Your task to perform on an android device: Search for sushi restaurants on Maps Image 0: 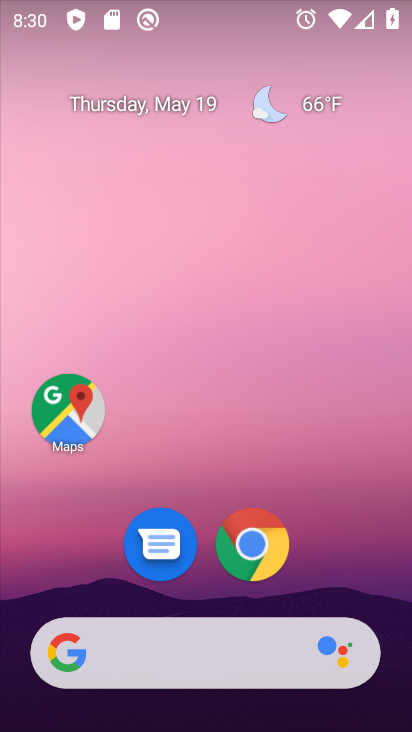
Step 0: drag from (388, 596) to (306, 74)
Your task to perform on an android device: Search for sushi restaurants on Maps Image 1: 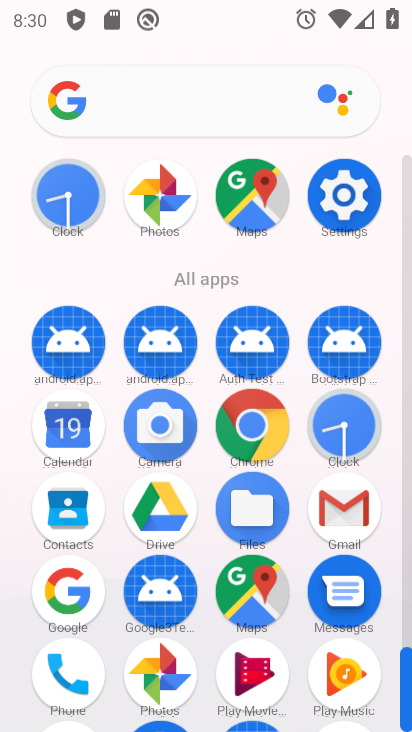
Step 1: click (238, 594)
Your task to perform on an android device: Search for sushi restaurants on Maps Image 2: 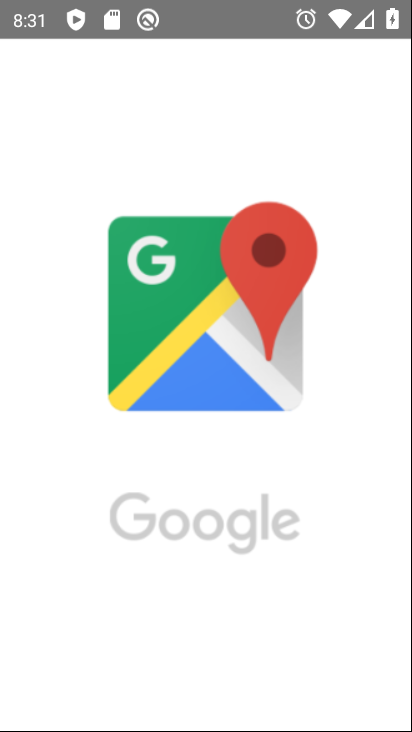
Step 2: task complete